Your task to perform on an android device: Open Reddit.com Image 0: 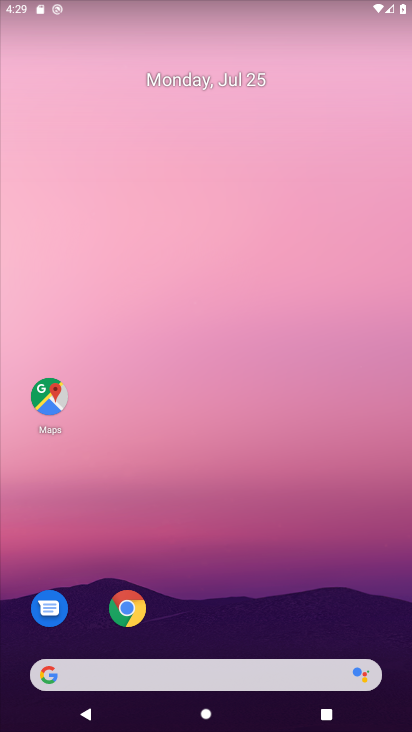
Step 0: click (130, 612)
Your task to perform on an android device: Open Reddit.com Image 1: 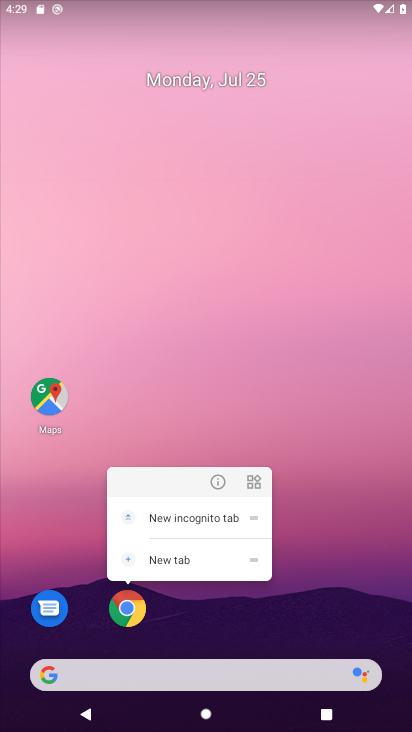
Step 1: click (129, 616)
Your task to perform on an android device: Open Reddit.com Image 2: 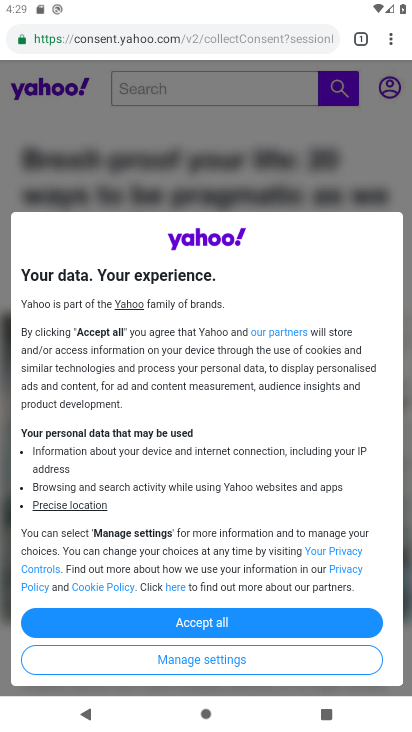
Step 2: click (131, 42)
Your task to perform on an android device: Open Reddit.com Image 3: 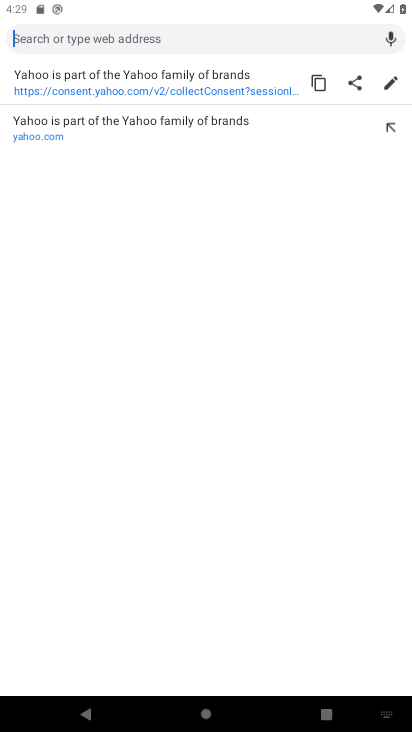
Step 3: type "Reddit.com"
Your task to perform on an android device: Open Reddit.com Image 4: 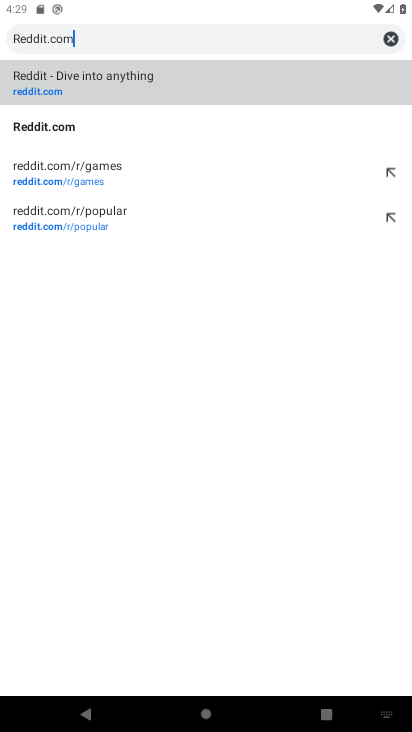
Step 4: click (143, 89)
Your task to perform on an android device: Open Reddit.com Image 5: 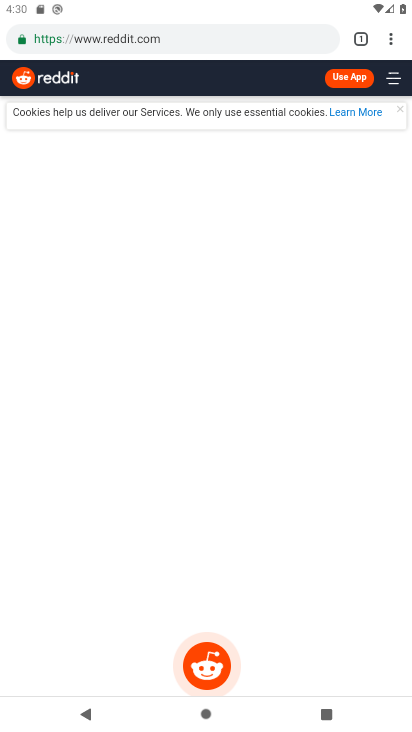
Step 5: task complete